Your task to perform on an android device: Open ESPN.com Image 0: 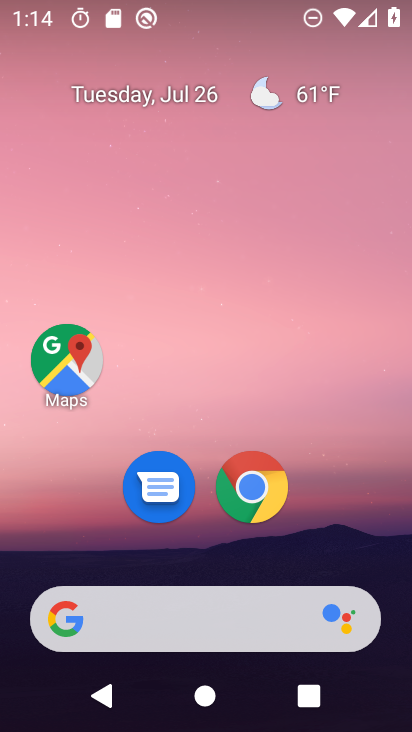
Step 0: click (268, 486)
Your task to perform on an android device: Open ESPN.com Image 1: 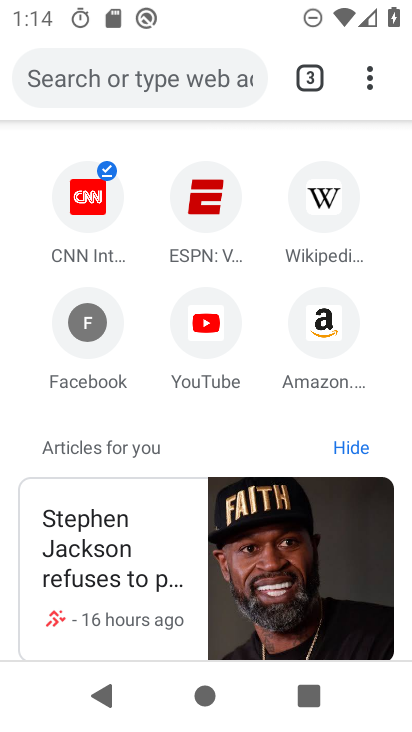
Step 1: click (217, 211)
Your task to perform on an android device: Open ESPN.com Image 2: 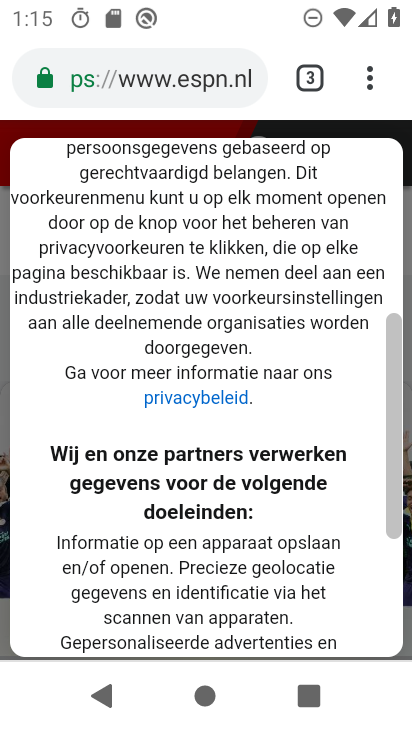
Step 2: task complete